Your task to perform on an android device: read, delete, or share a saved page in the chrome app Image 0: 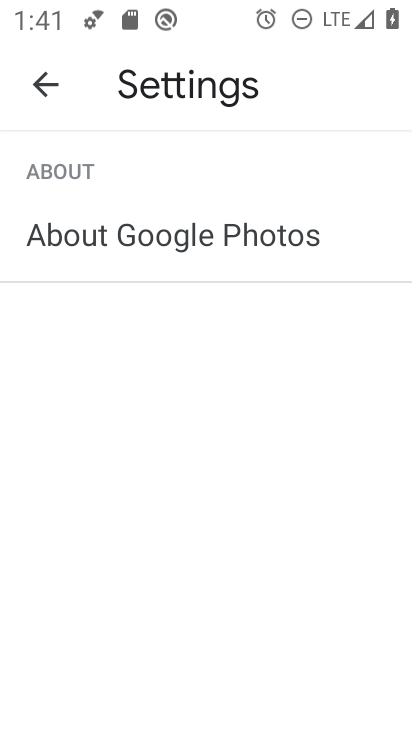
Step 0: press home button
Your task to perform on an android device: read, delete, or share a saved page in the chrome app Image 1: 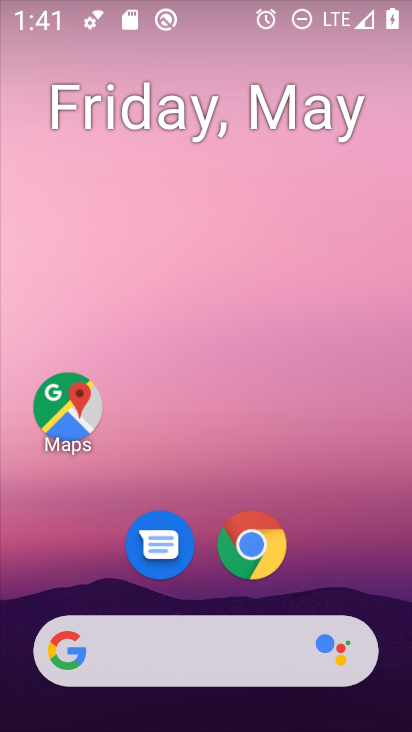
Step 1: drag from (337, 529) to (284, 194)
Your task to perform on an android device: read, delete, or share a saved page in the chrome app Image 2: 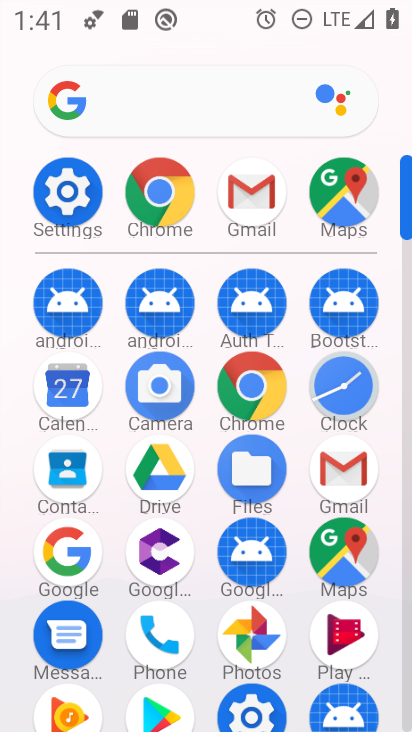
Step 2: click (260, 377)
Your task to perform on an android device: read, delete, or share a saved page in the chrome app Image 3: 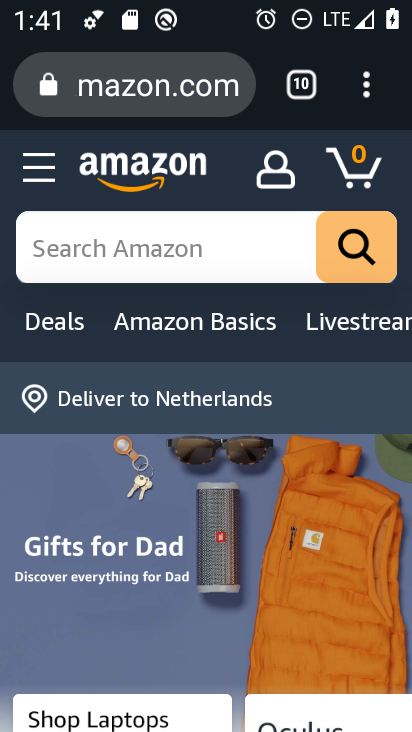
Step 3: click (366, 71)
Your task to perform on an android device: read, delete, or share a saved page in the chrome app Image 4: 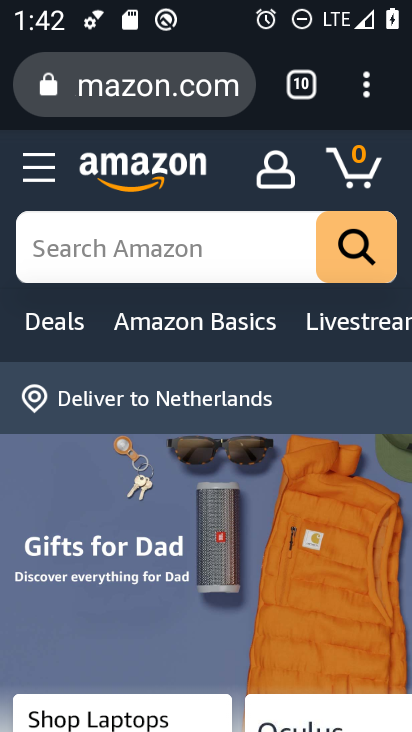
Step 4: click (371, 74)
Your task to perform on an android device: read, delete, or share a saved page in the chrome app Image 5: 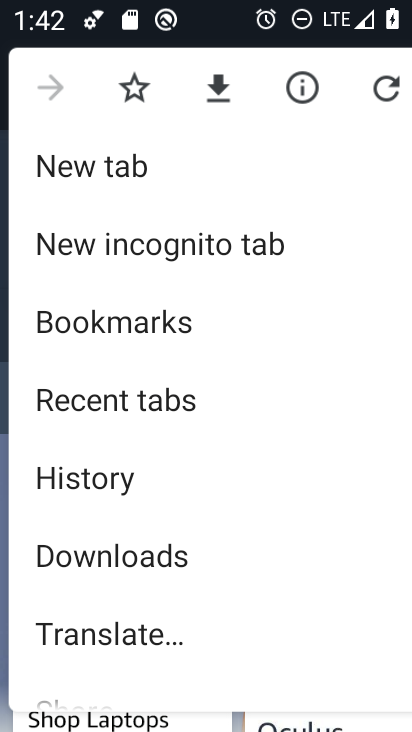
Step 5: click (119, 547)
Your task to perform on an android device: read, delete, or share a saved page in the chrome app Image 6: 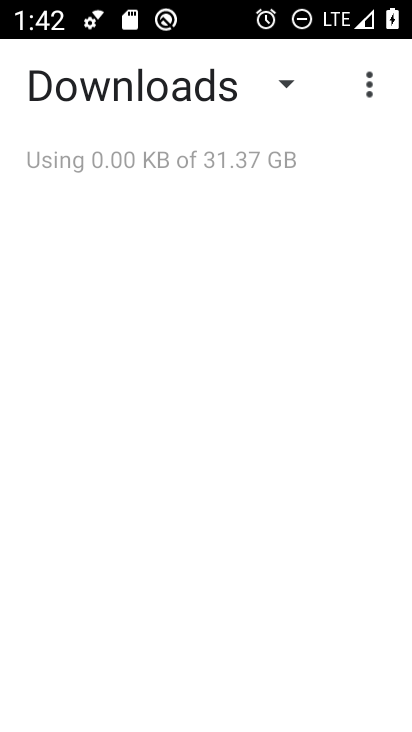
Step 6: click (292, 85)
Your task to perform on an android device: read, delete, or share a saved page in the chrome app Image 7: 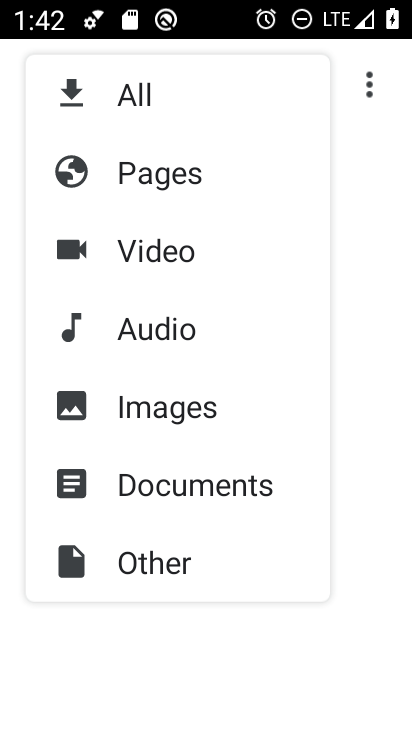
Step 7: click (157, 171)
Your task to perform on an android device: read, delete, or share a saved page in the chrome app Image 8: 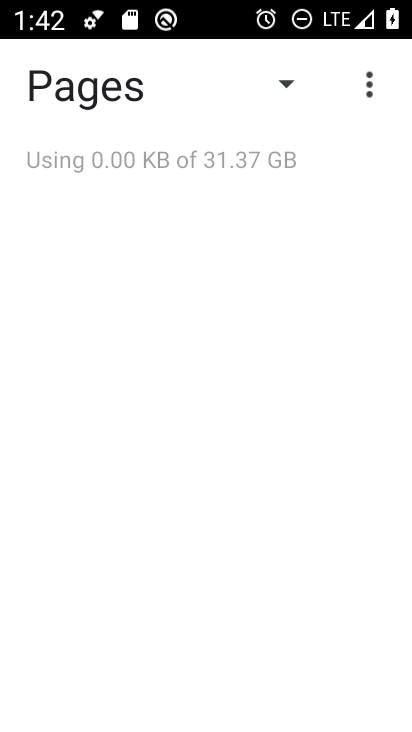
Step 8: task complete